Your task to perform on an android device: Open Android settings Image 0: 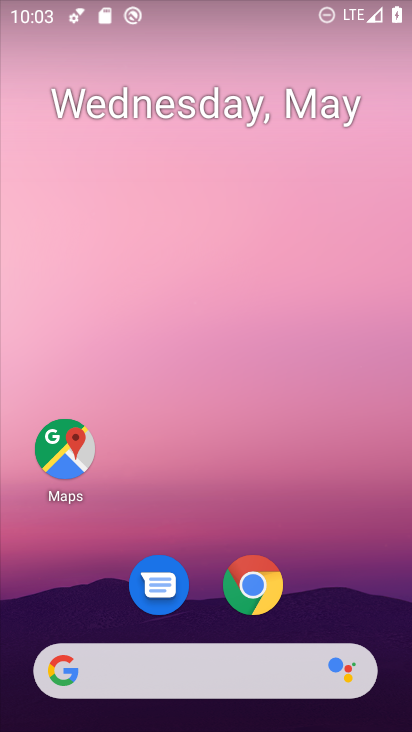
Step 0: drag from (290, 477) to (253, 34)
Your task to perform on an android device: Open Android settings Image 1: 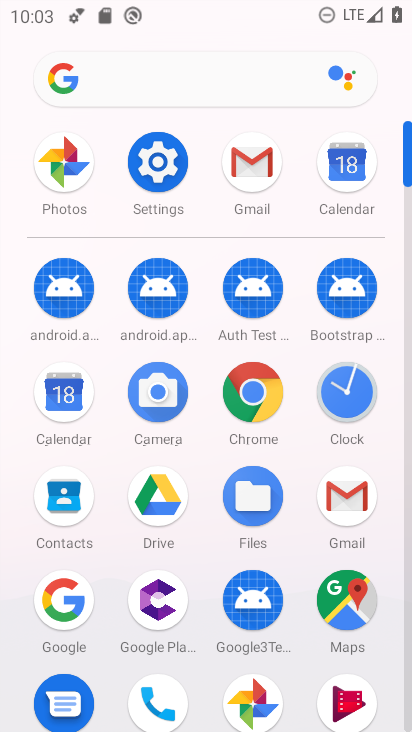
Step 1: click (167, 161)
Your task to perform on an android device: Open Android settings Image 2: 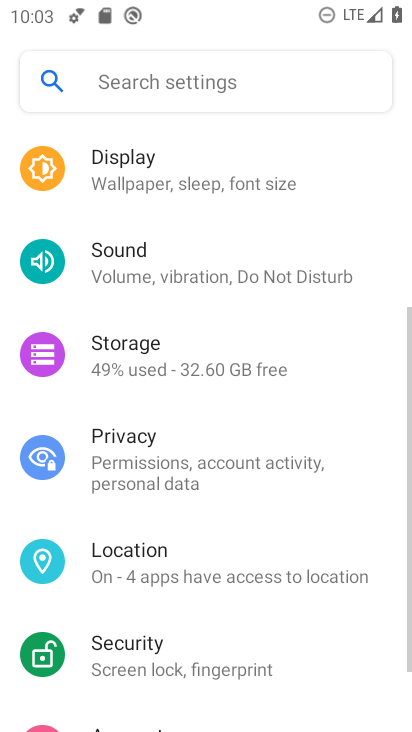
Step 2: drag from (242, 637) to (243, 124)
Your task to perform on an android device: Open Android settings Image 3: 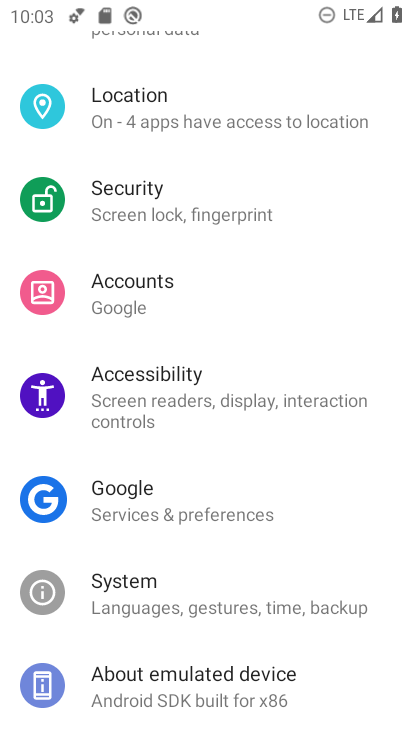
Step 3: click (213, 678)
Your task to perform on an android device: Open Android settings Image 4: 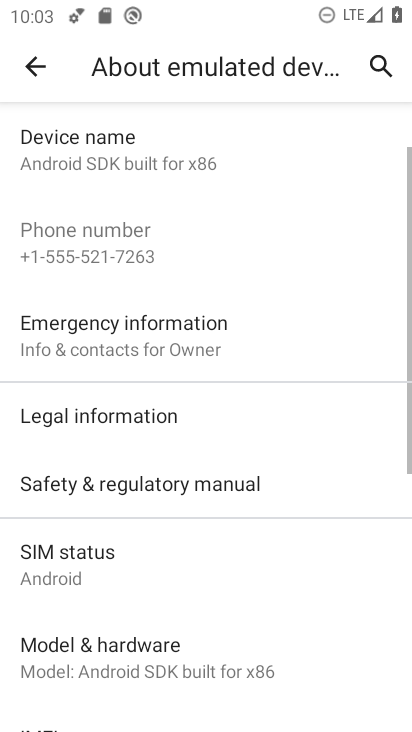
Step 4: task complete